Your task to perform on an android device: Open Android settings Image 0: 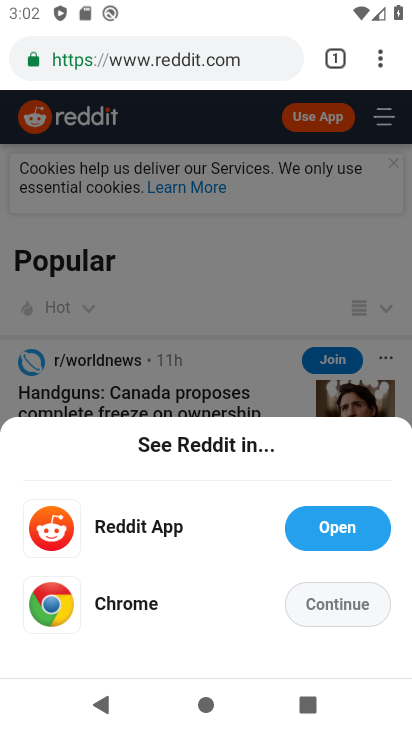
Step 0: press home button
Your task to perform on an android device: Open Android settings Image 1: 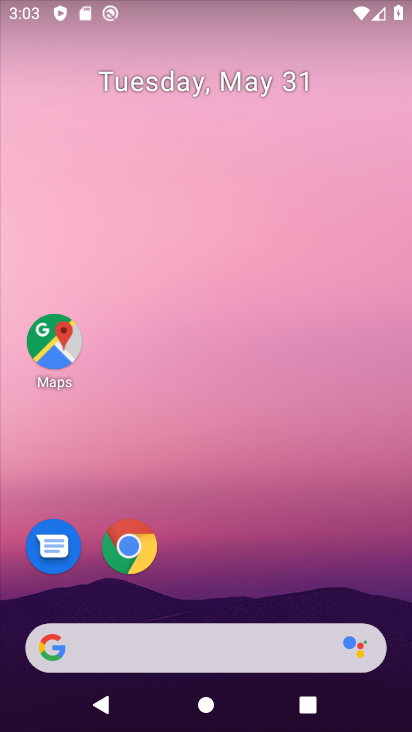
Step 1: drag from (215, 605) to (245, 21)
Your task to perform on an android device: Open Android settings Image 2: 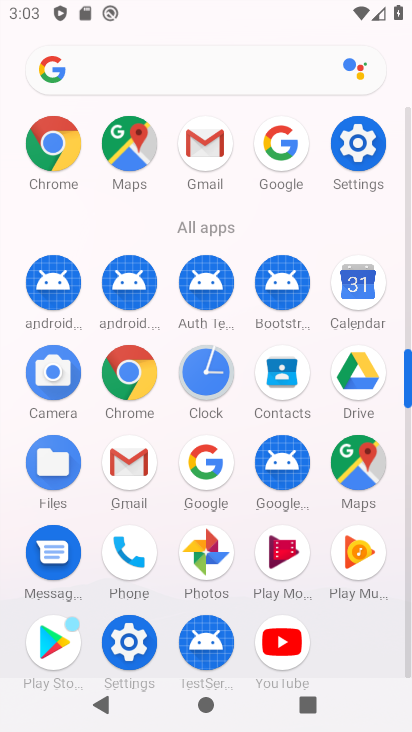
Step 2: click (363, 154)
Your task to perform on an android device: Open Android settings Image 3: 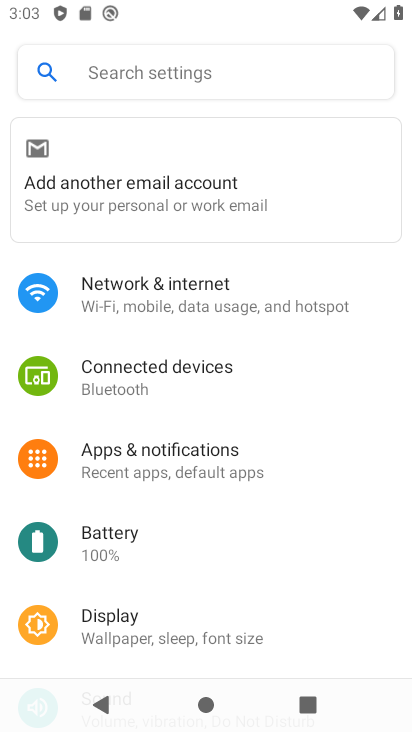
Step 3: click (222, 393)
Your task to perform on an android device: Open Android settings Image 4: 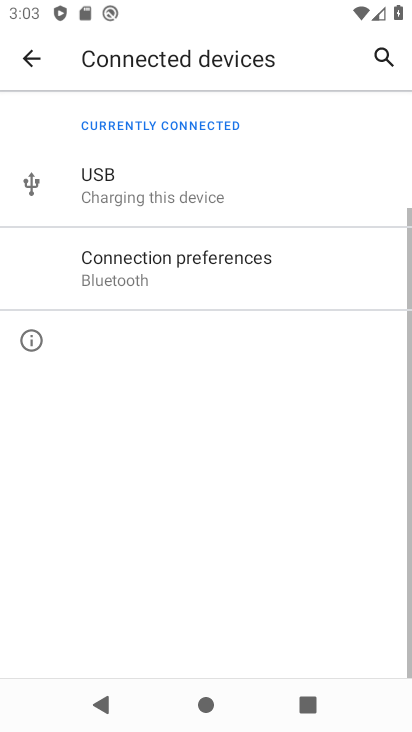
Step 4: drag from (147, 595) to (151, 442)
Your task to perform on an android device: Open Android settings Image 5: 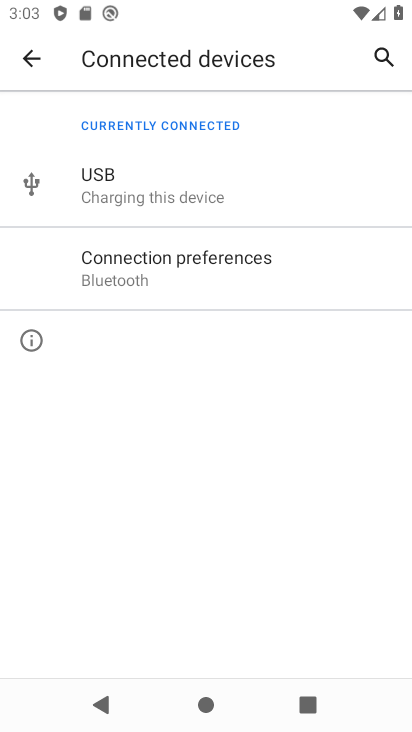
Step 5: click (32, 73)
Your task to perform on an android device: Open Android settings Image 6: 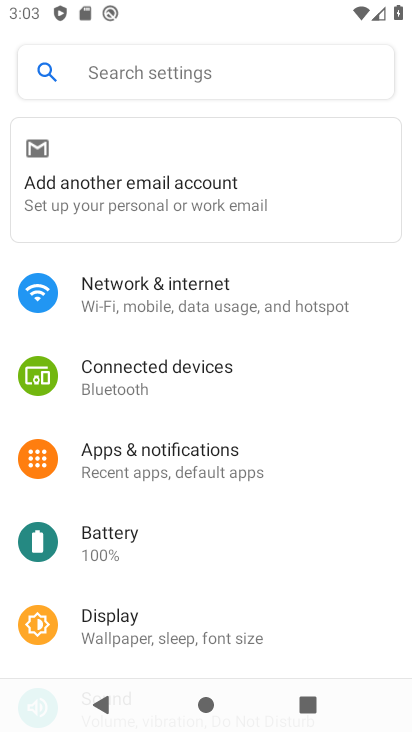
Step 6: drag from (162, 639) to (153, 505)
Your task to perform on an android device: Open Android settings Image 7: 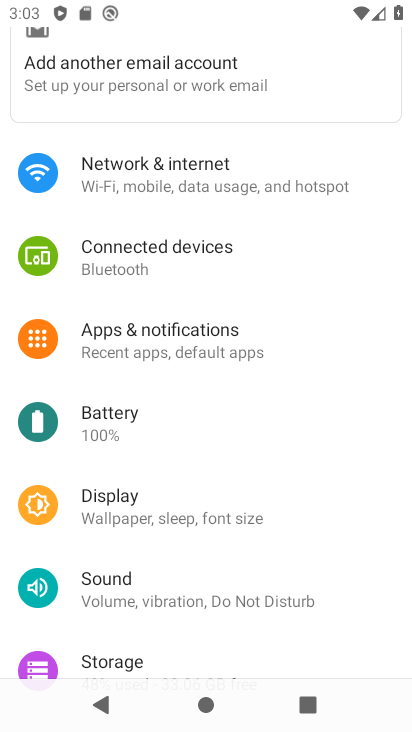
Step 7: drag from (105, 634) to (120, 534)
Your task to perform on an android device: Open Android settings Image 8: 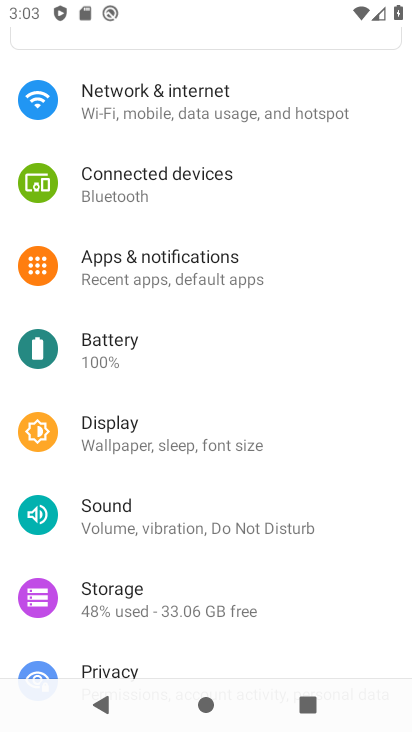
Step 8: drag from (134, 592) to (197, 321)
Your task to perform on an android device: Open Android settings Image 9: 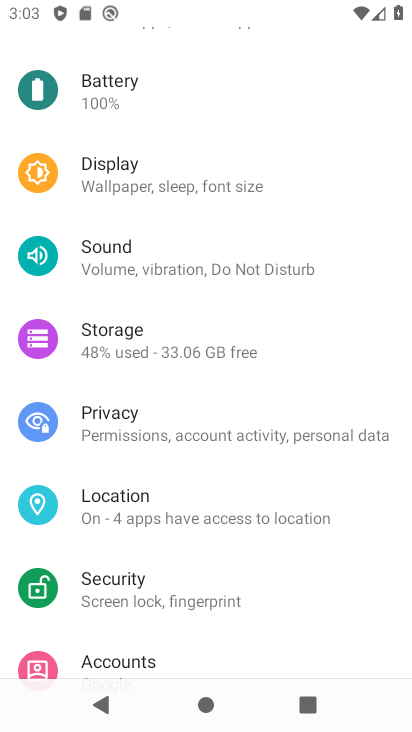
Step 9: drag from (215, 595) to (232, 297)
Your task to perform on an android device: Open Android settings Image 10: 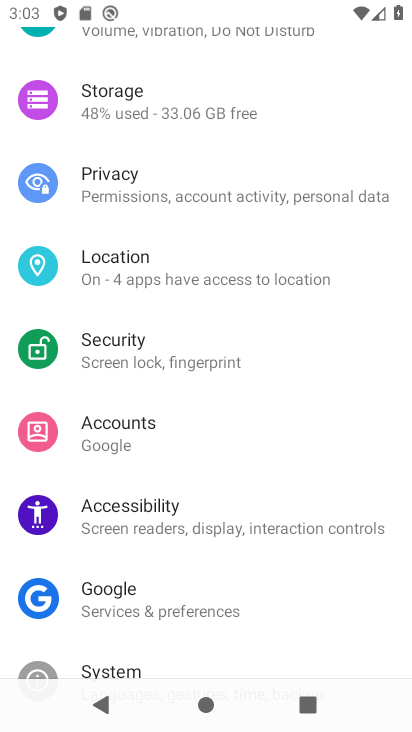
Step 10: drag from (152, 618) to (188, 446)
Your task to perform on an android device: Open Android settings Image 11: 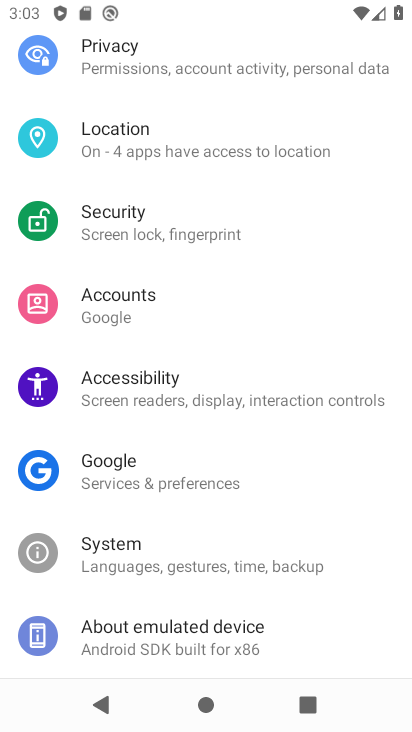
Step 11: click (135, 641)
Your task to perform on an android device: Open Android settings Image 12: 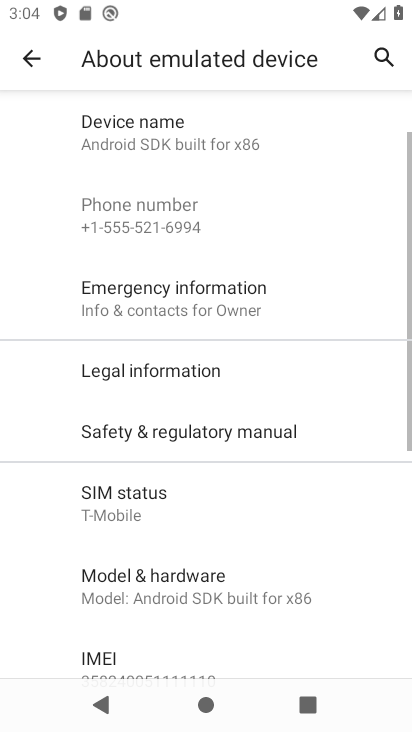
Step 12: drag from (159, 533) to (226, 319)
Your task to perform on an android device: Open Android settings Image 13: 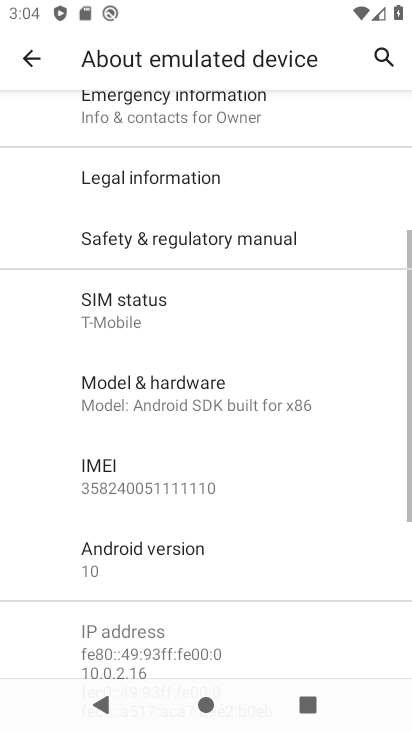
Step 13: drag from (144, 583) to (186, 441)
Your task to perform on an android device: Open Android settings Image 14: 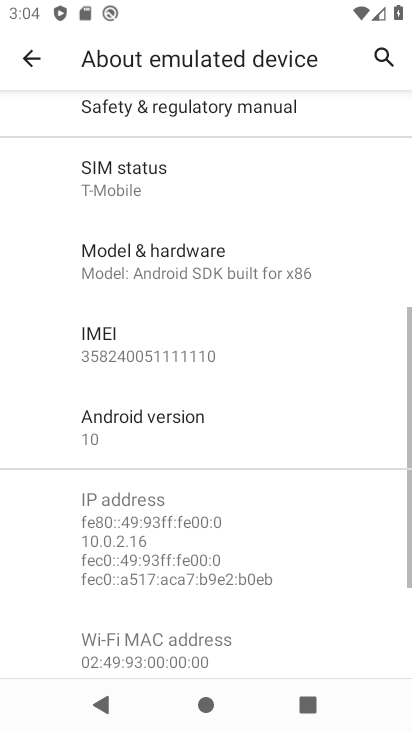
Step 14: click (191, 430)
Your task to perform on an android device: Open Android settings Image 15: 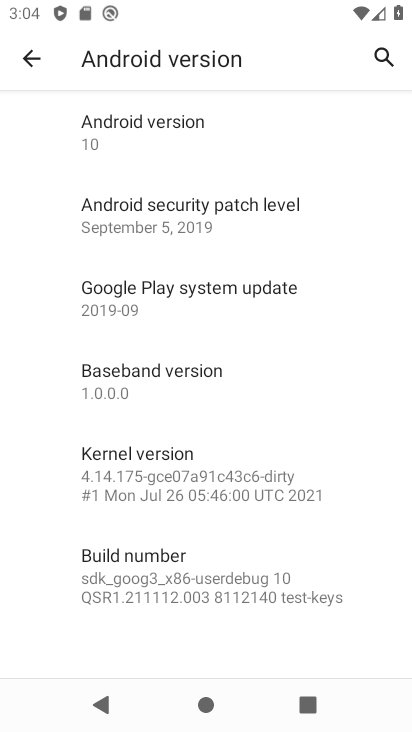
Step 15: task complete